Your task to perform on an android device: turn off location Image 0: 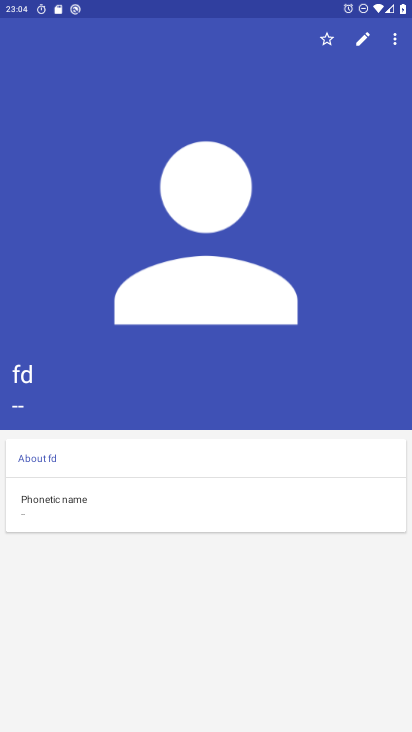
Step 0: press home button
Your task to perform on an android device: turn off location Image 1: 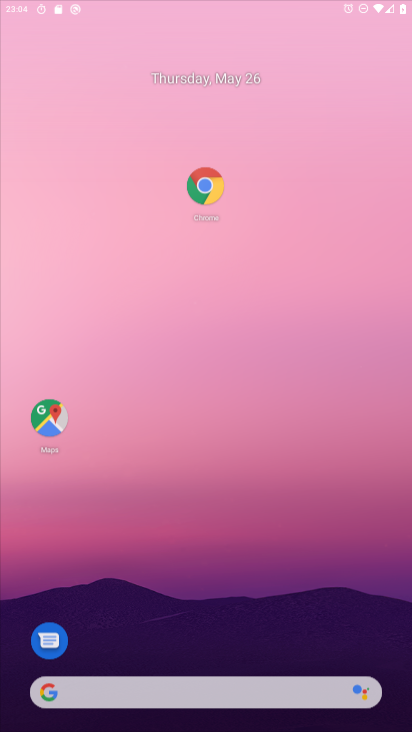
Step 1: drag from (228, 529) to (333, 13)
Your task to perform on an android device: turn off location Image 2: 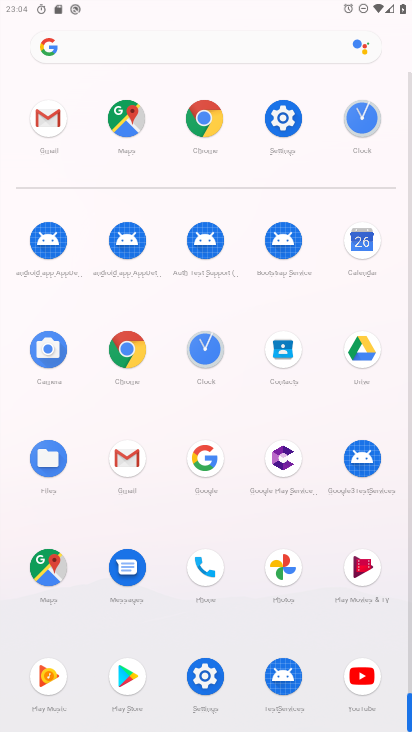
Step 2: click (289, 122)
Your task to perform on an android device: turn off location Image 3: 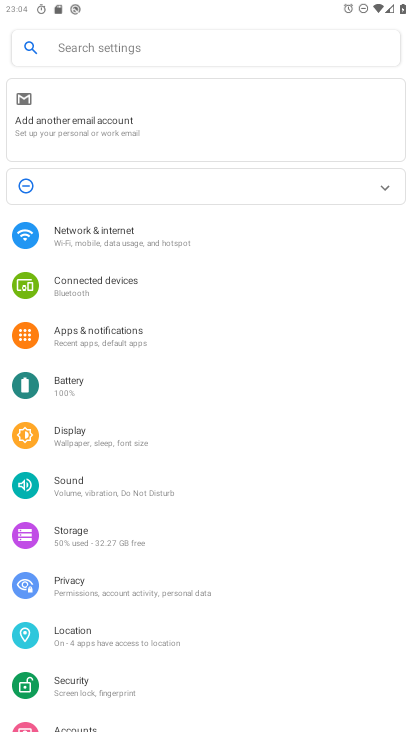
Step 3: click (109, 629)
Your task to perform on an android device: turn off location Image 4: 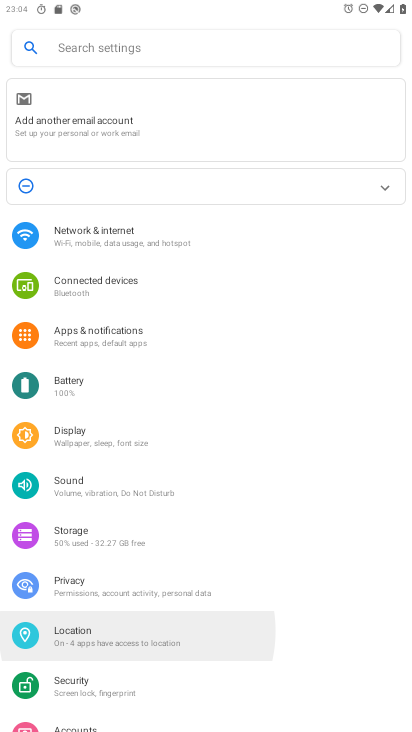
Step 4: click (108, 630)
Your task to perform on an android device: turn off location Image 5: 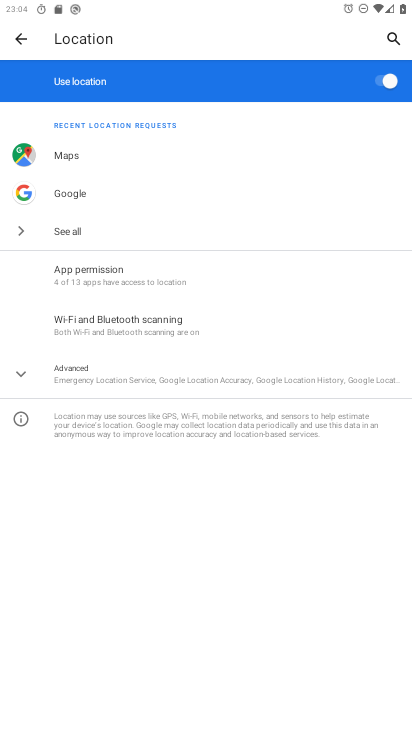
Step 5: click (383, 82)
Your task to perform on an android device: turn off location Image 6: 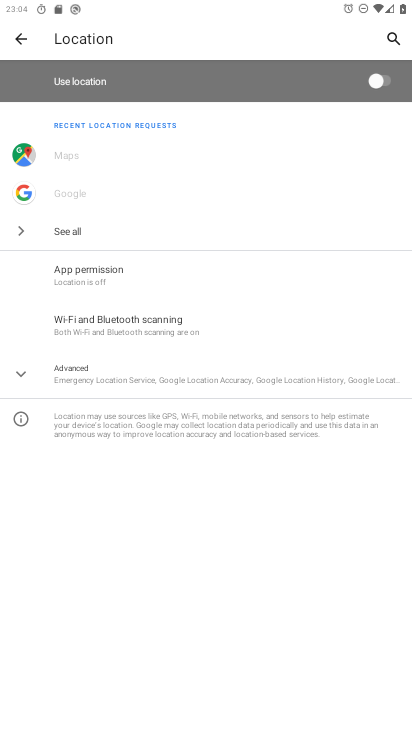
Step 6: task complete